Your task to perform on an android device: Open Chrome and go to the settings page Image 0: 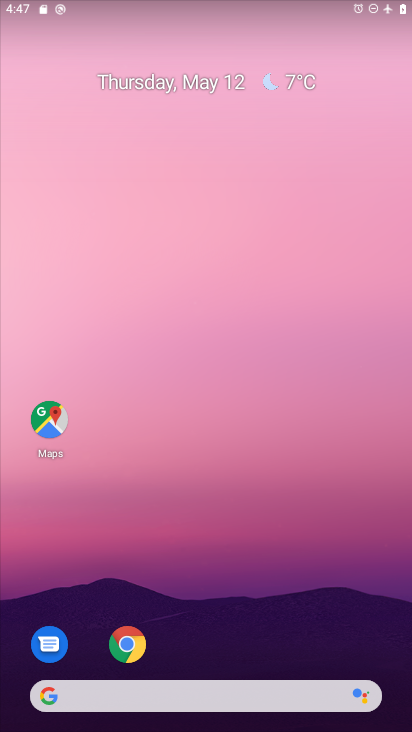
Step 0: drag from (217, 642) to (274, 0)
Your task to perform on an android device: Open Chrome and go to the settings page Image 1: 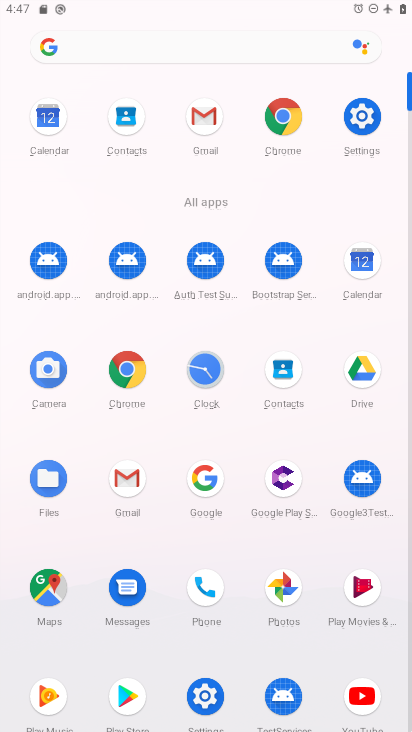
Step 1: click (289, 134)
Your task to perform on an android device: Open Chrome and go to the settings page Image 2: 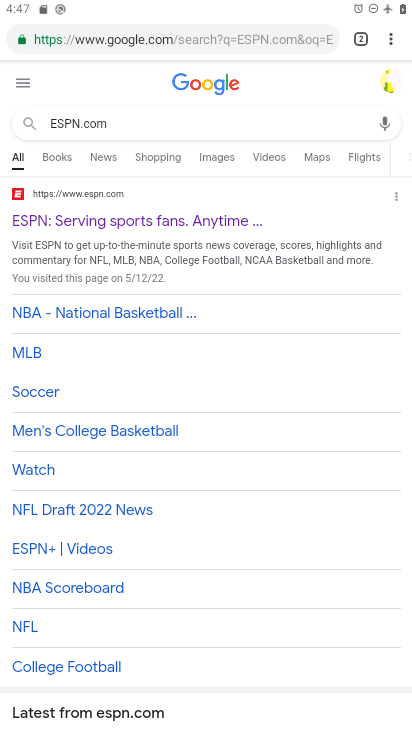
Step 2: click (388, 41)
Your task to perform on an android device: Open Chrome and go to the settings page Image 3: 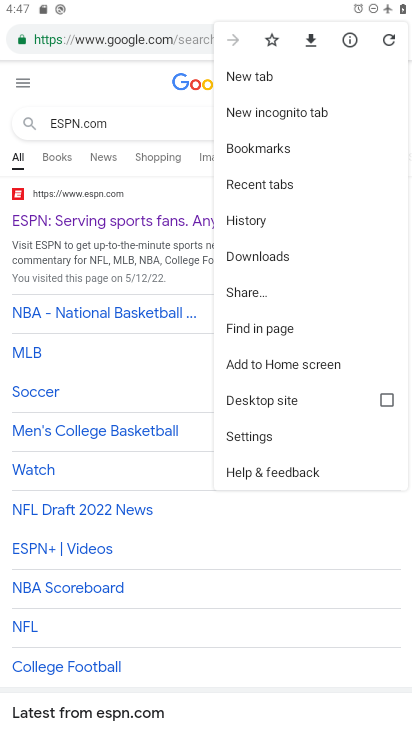
Step 3: click (254, 434)
Your task to perform on an android device: Open Chrome and go to the settings page Image 4: 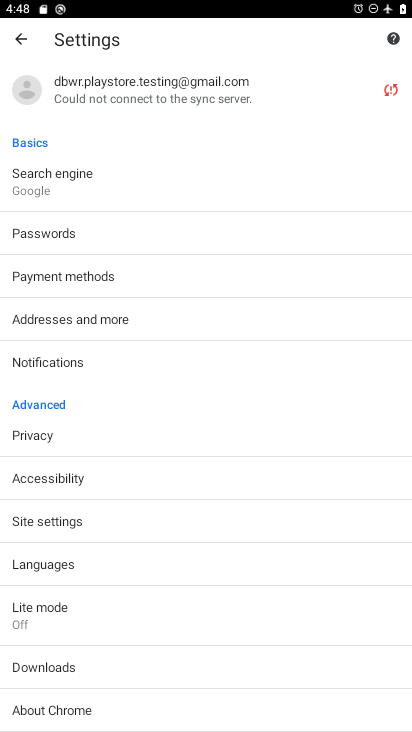
Step 4: task complete